Your task to perform on an android device: turn on location history Image 0: 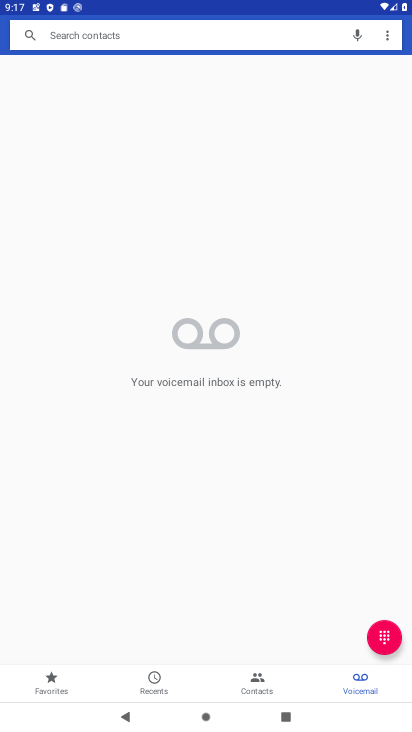
Step 0: press home button
Your task to perform on an android device: turn on location history Image 1: 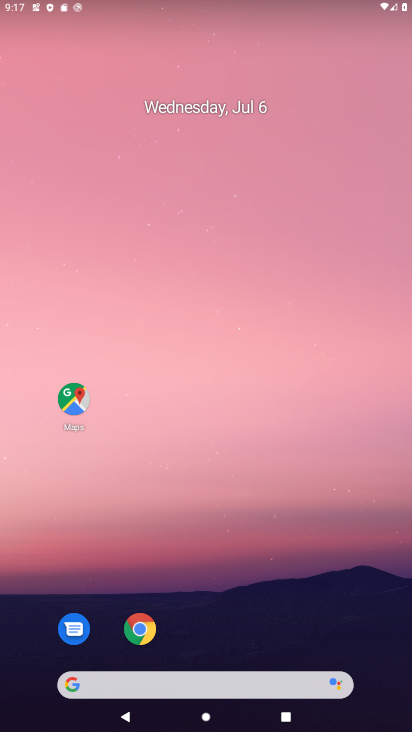
Step 1: drag from (238, 641) to (200, 108)
Your task to perform on an android device: turn on location history Image 2: 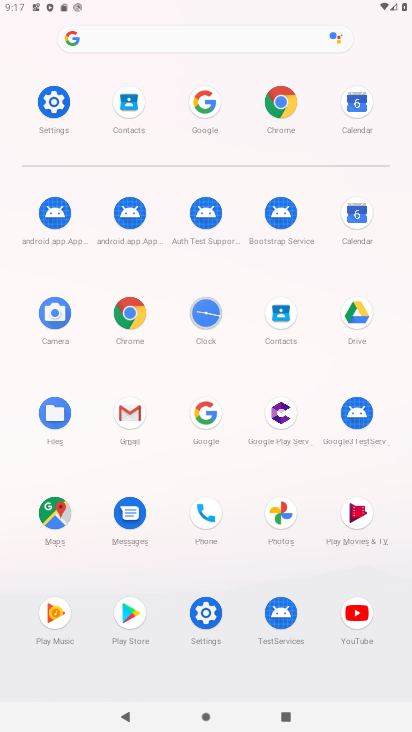
Step 2: click (52, 95)
Your task to perform on an android device: turn on location history Image 3: 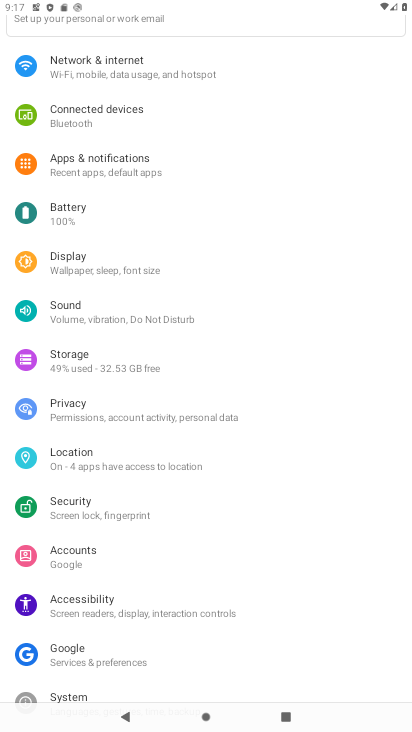
Step 3: click (93, 456)
Your task to perform on an android device: turn on location history Image 4: 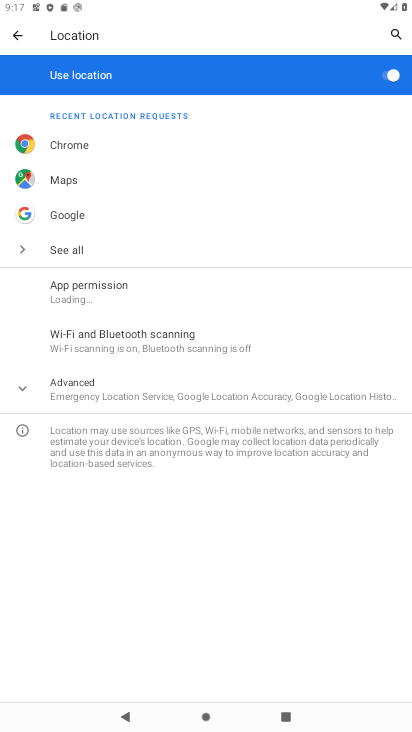
Step 4: click (64, 391)
Your task to perform on an android device: turn on location history Image 5: 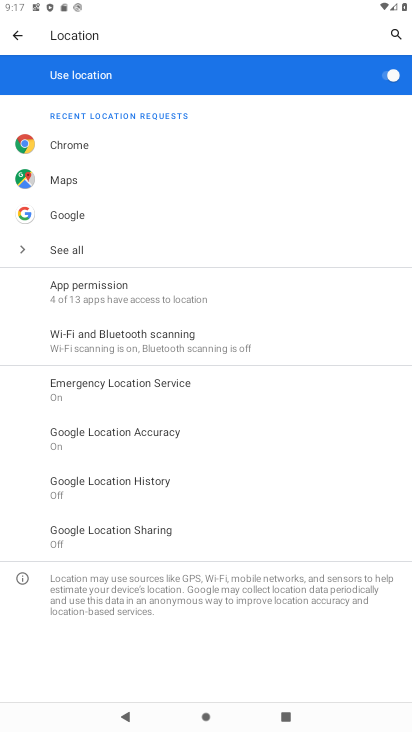
Step 5: click (110, 485)
Your task to perform on an android device: turn on location history Image 6: 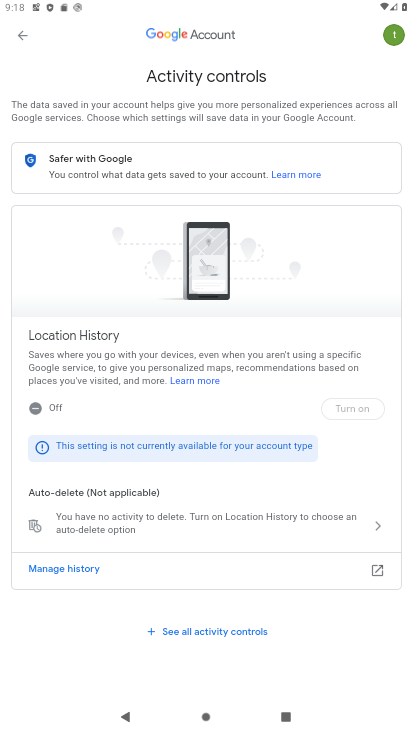
Step 6: click (363, 411)
Your task to perform on an android device: turn on location history Image 7: 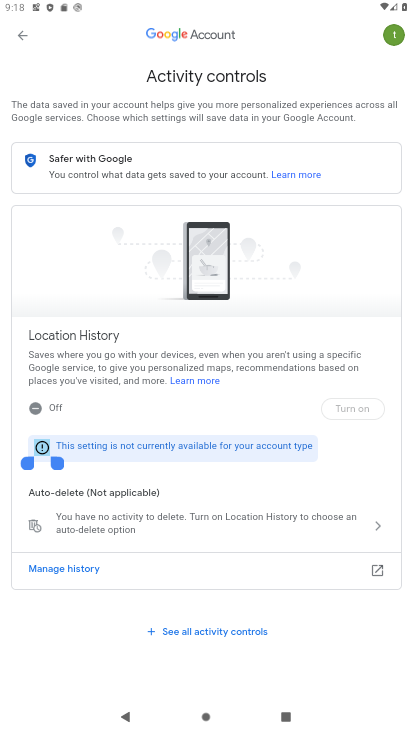
Step 7: click (173, 471)
Your task to perform on an android device: turn on location history Image 8: 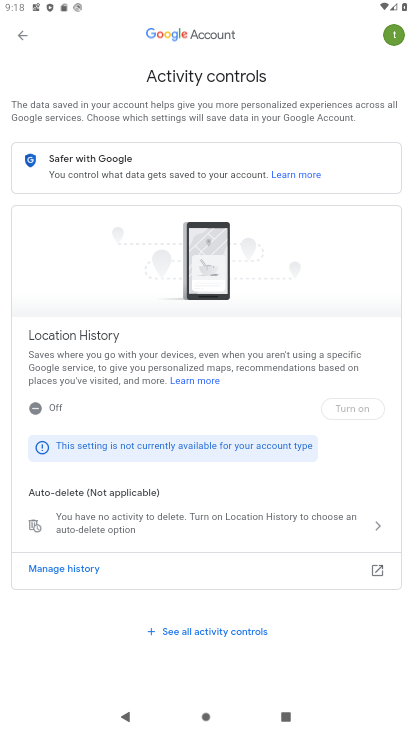
Step 8: drag from (201, 390) to (170, 172)
Your task to perform on an android device: turn on location history Image 9: 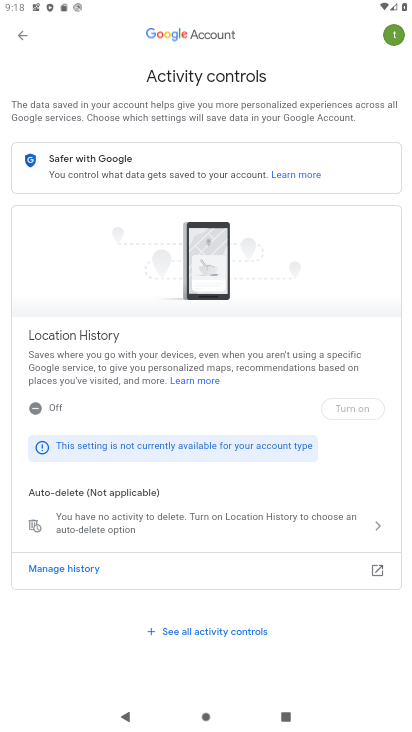
Step 9: click (46, 405)
Your task to perform on an android device: turn on location history Image 10: 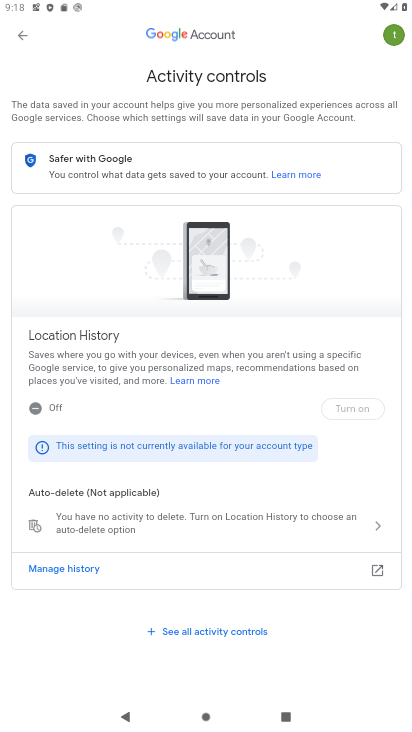
Step 10: task complete